Your task to perform on an android device: Open the stopwatch Image 0: 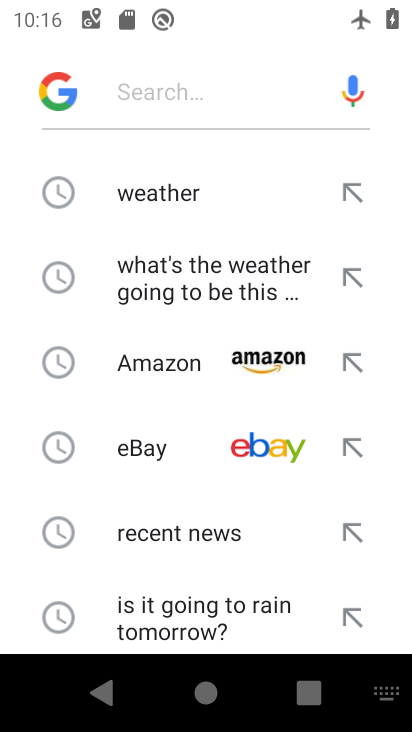
Step 0: press home button
Your task to perform on an android device: Open the stopwatch Image 1: 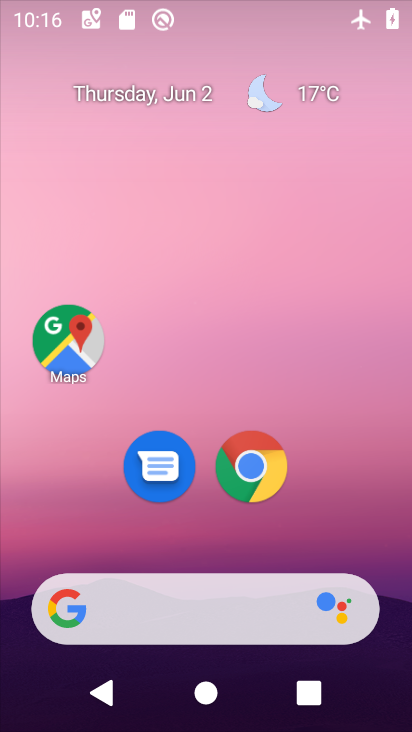
Step 1: drag from (310, 524) to (341, 236)
Your task to perform on an android device: Open the stopwatch Image 2: 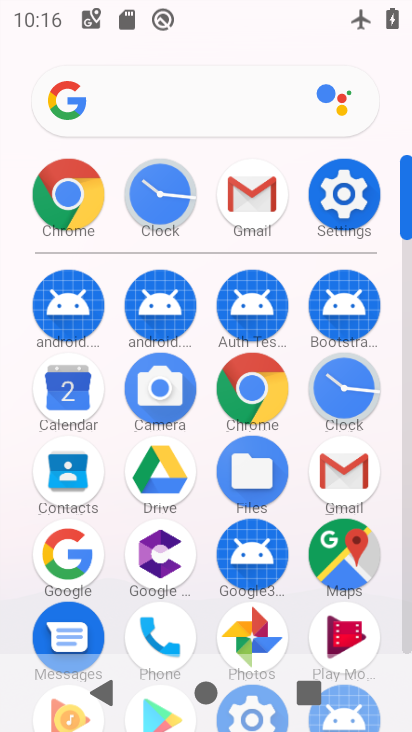
Step 2: click (354, 395)
Your task to perform on an android device: Open the stopwatch Image 3: 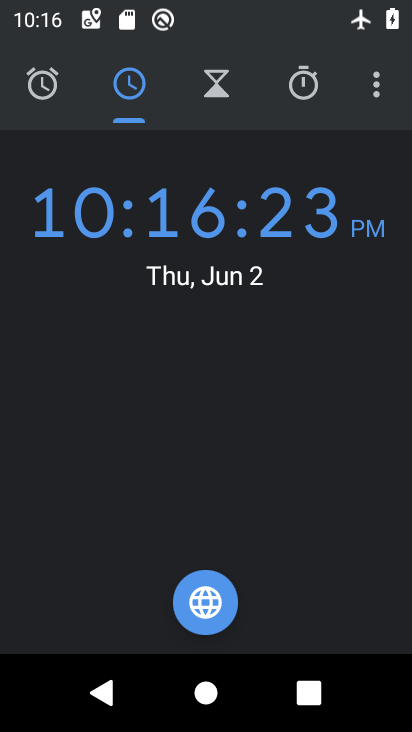
Step 3: click (376, 79)
Your task to perform on an android device: Open the stopwatch Image 4: 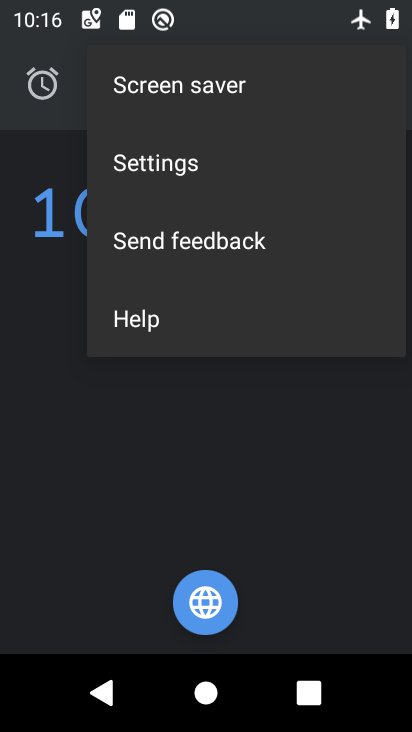
Step 4: click (230, 425)
Your task to perform on an android device: Open the stopwatch Image 5: 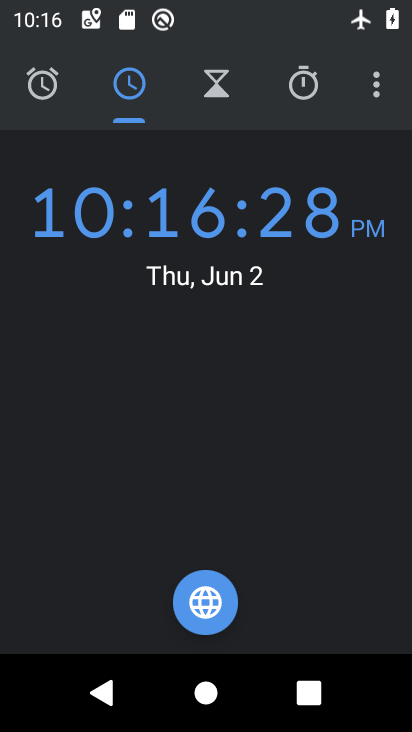
Step 5: click (302, 66)
Your task to perform on an android device: Open the stopwatch Image 6: 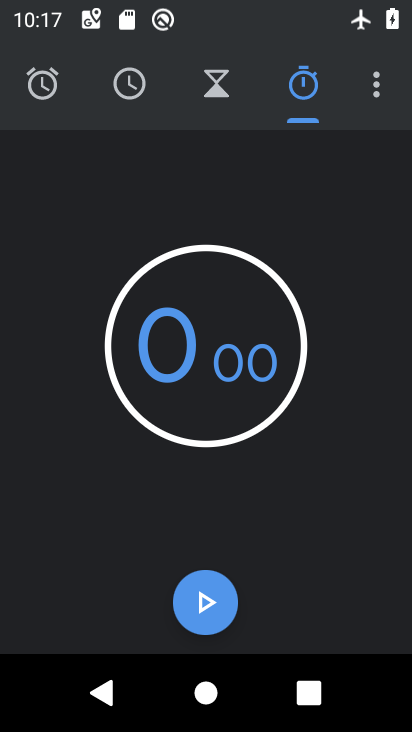
Step 6: task complete